Your task to perform on an android device: install app "VLC for Android" Image 0: 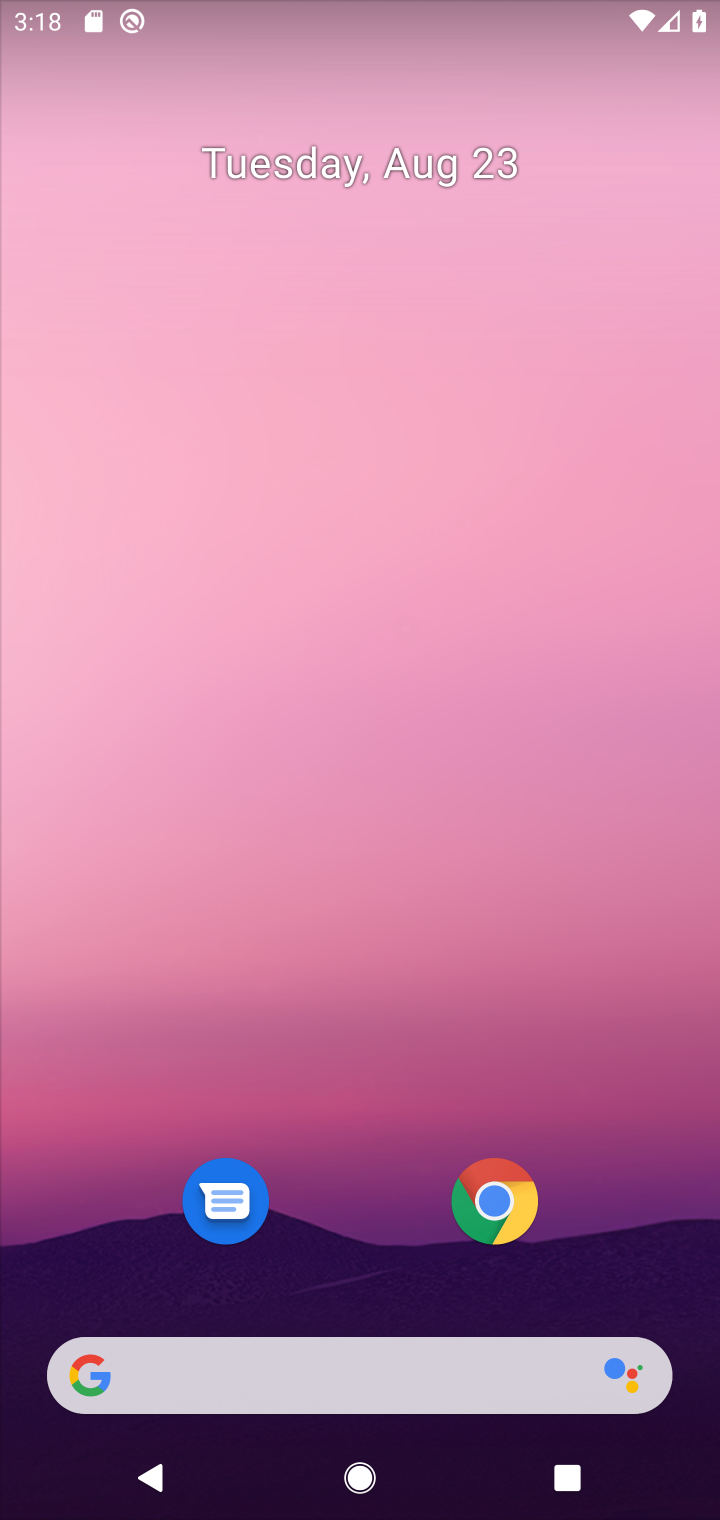
Step 0: drag from (656, 1263) to (559, 171)
Your task to perform on an android device: install app "VLC for Android" Image 1: 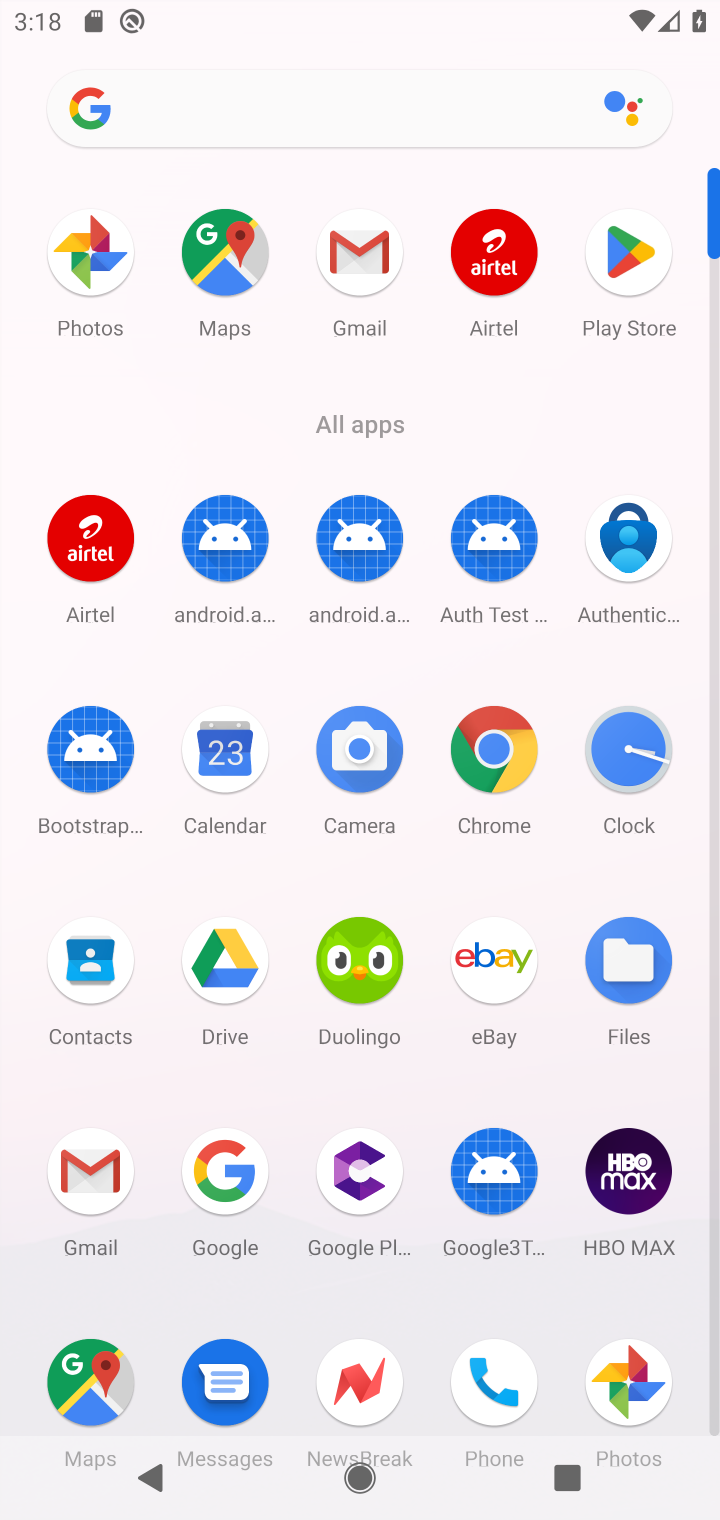
Step 1: click (715, 1351)
Your task to perform on an android device: install app "VLC for Android" Image 2: 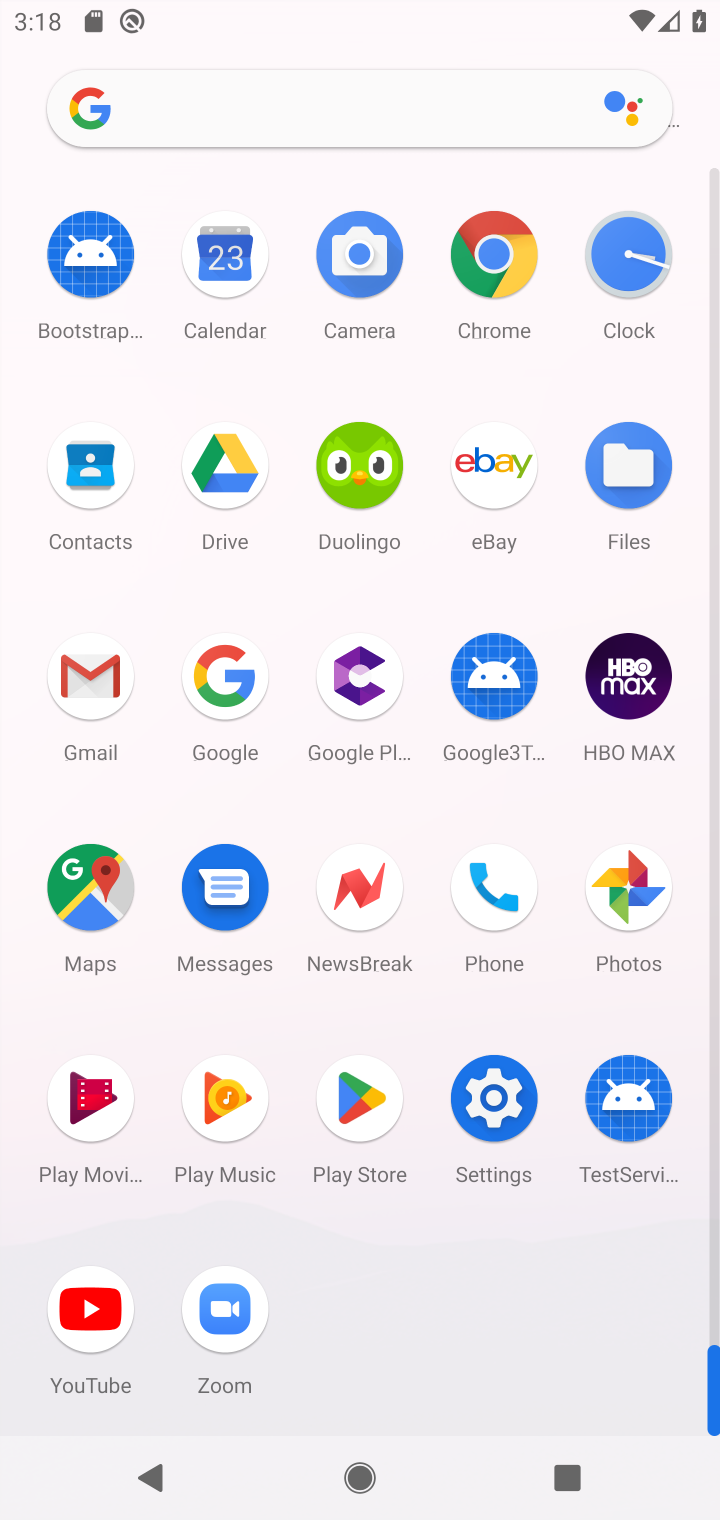
Step 2: click (350, 1106)
Your task to perform on an android device: install app "VLC for Android" Image 3: 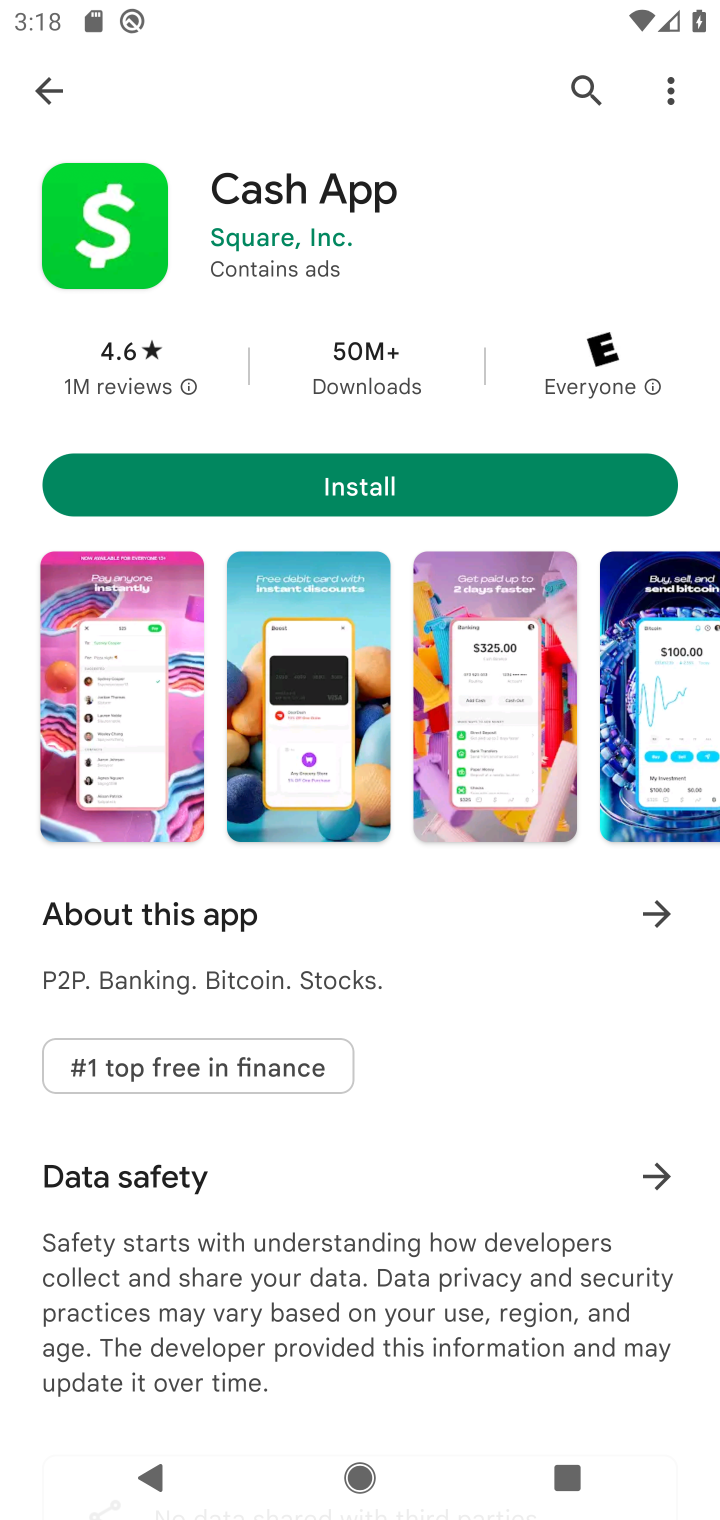
Step 3: click (579, 86)
Your task to perform on an android device: install app "VLC for Android" Image 4: 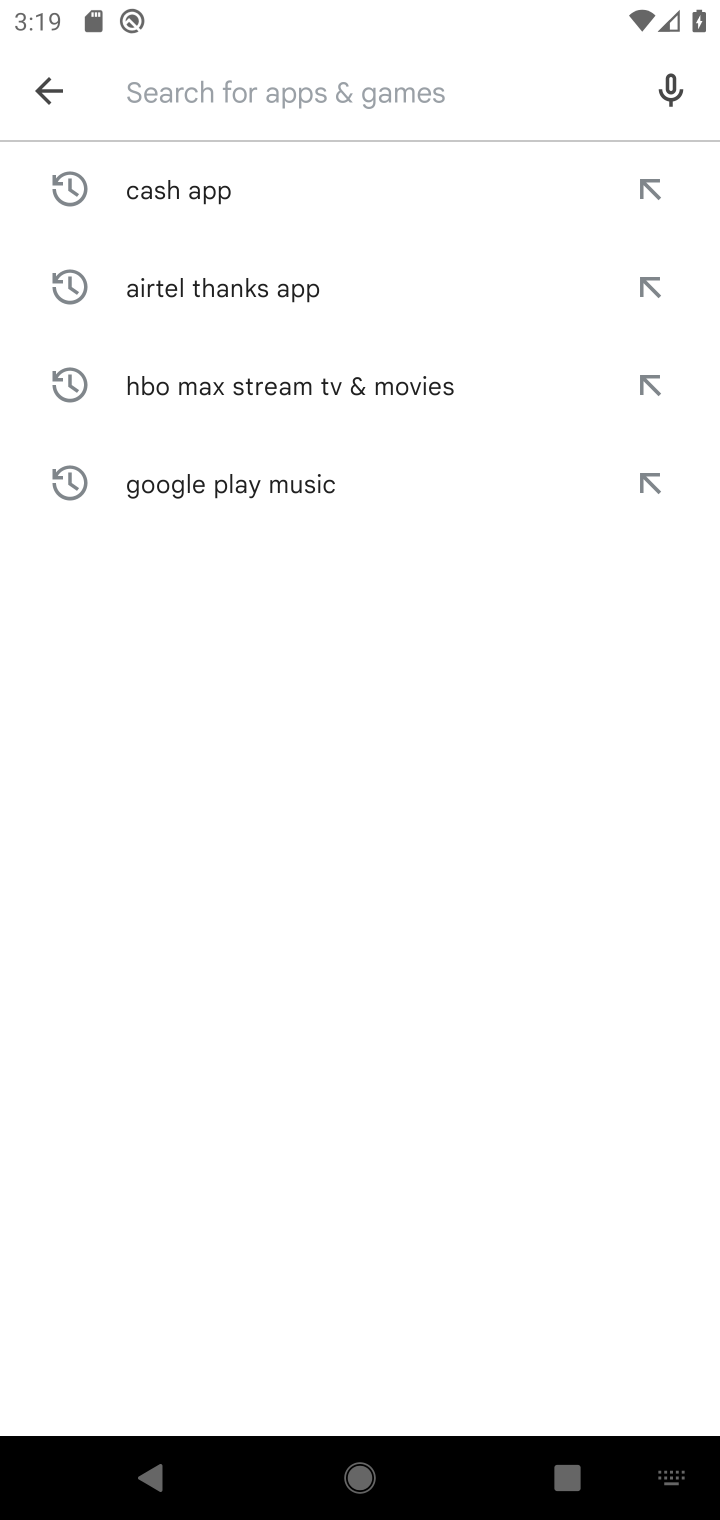
Step 4: type "VLC for Android"
Your task to perform on an android device: install app "VLC for Android" Image 5: 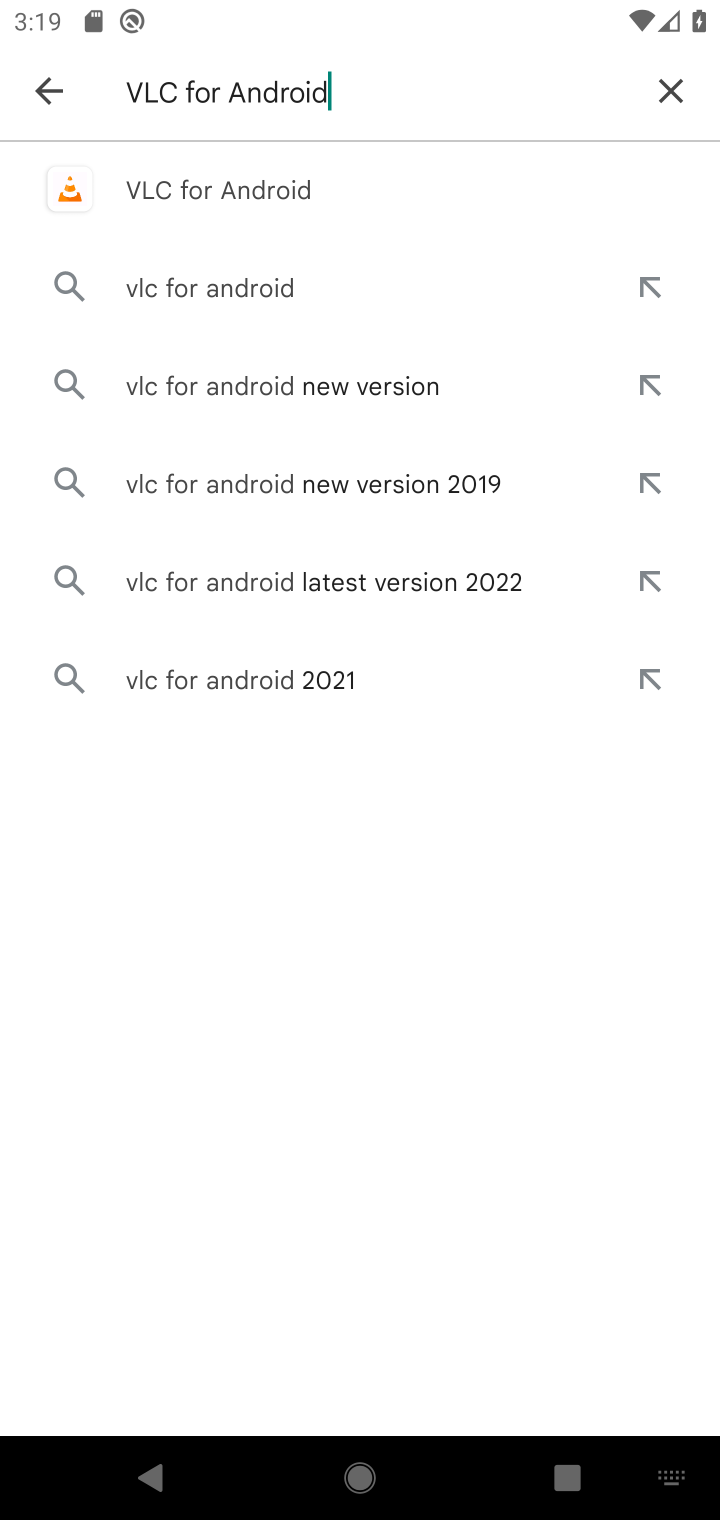
Step 5: click (184, 182)
Your task to perform on an android device: install app "VLC for Android" Image 6: 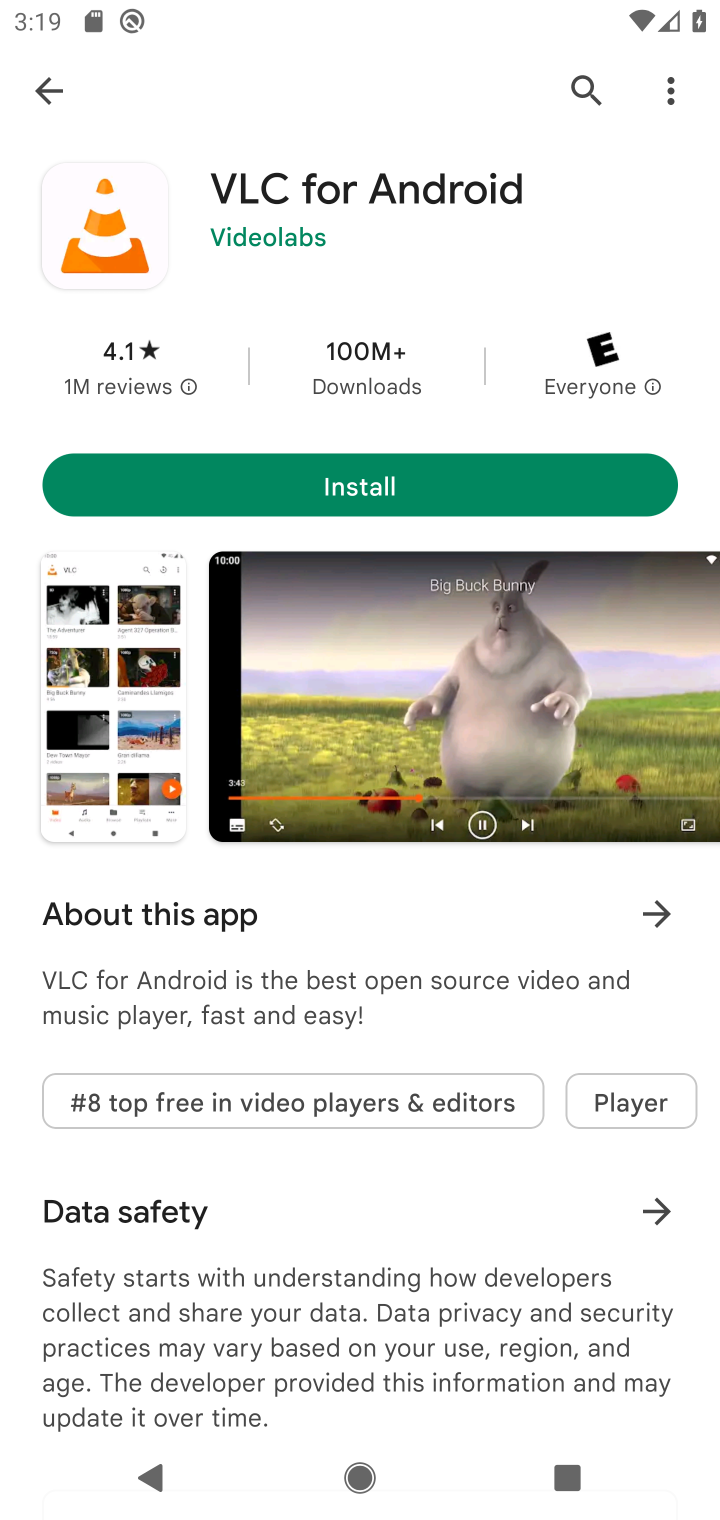
Step 6: click (350, 478)
Your task to perform on an android device: install app "VLC for Android" Image 7: 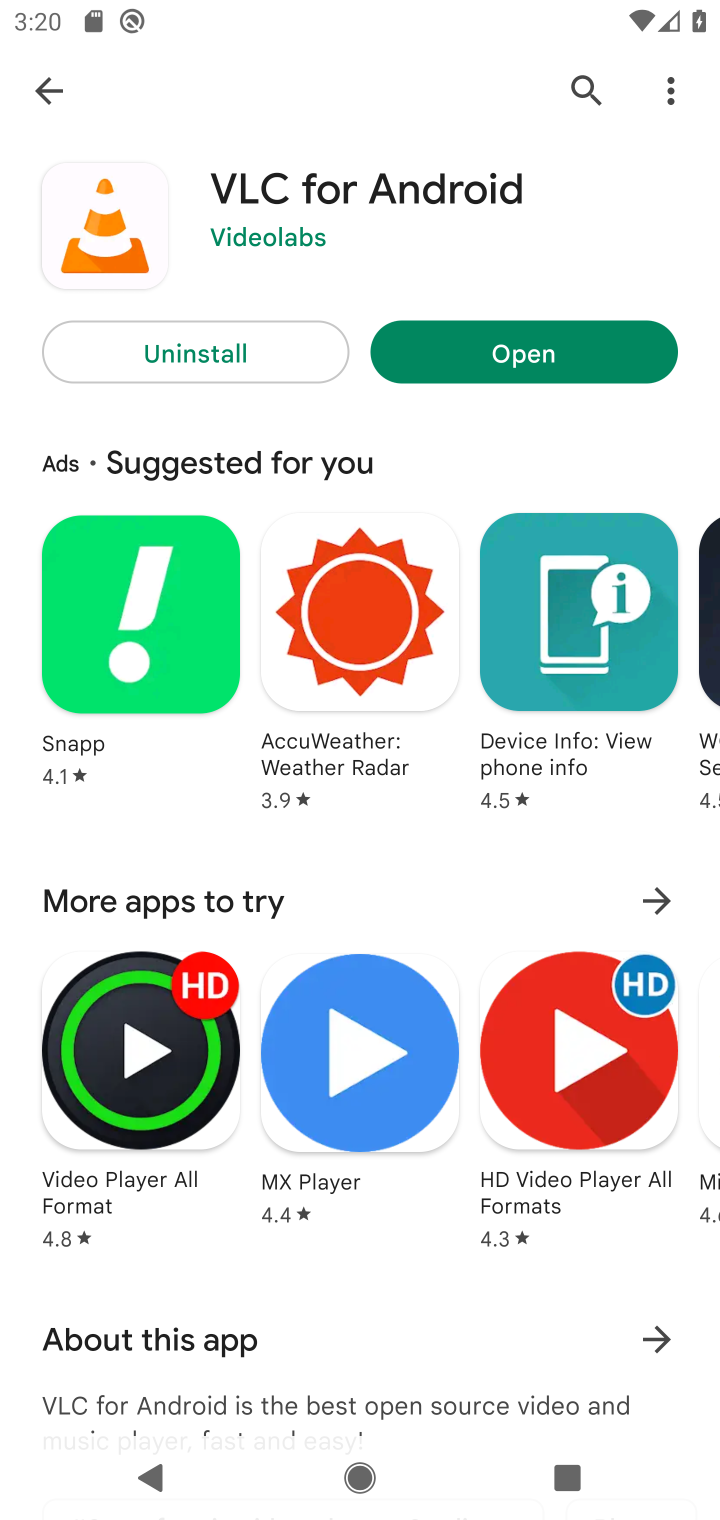
Step 7: task complete